Your task to perform on an android device: toggle priority inbox in the gmail app Image 0: 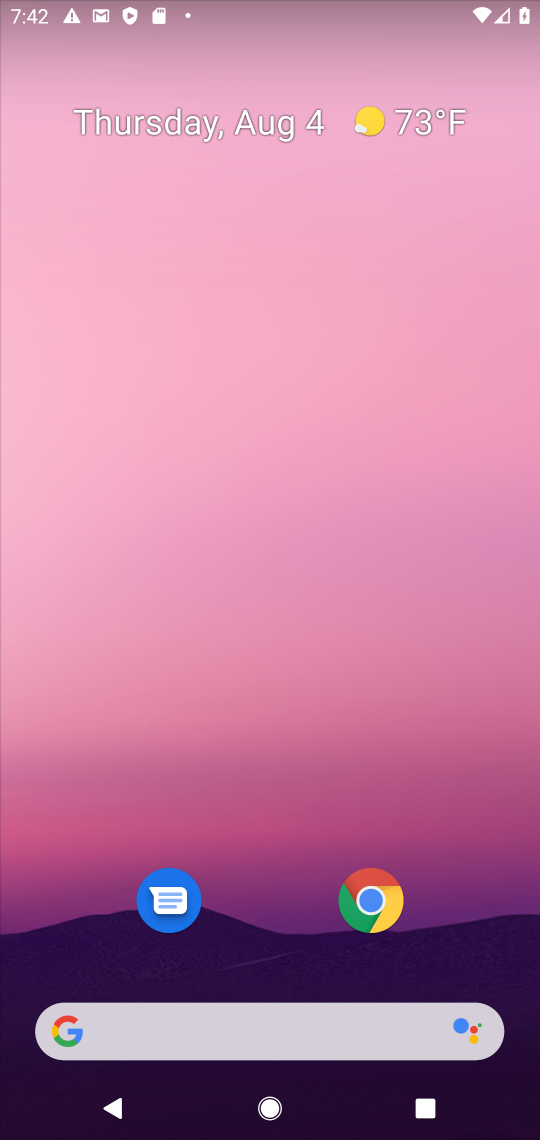
Step 0: drag from (267, 1021) to (404, 243)
Your task to perform on an android device: toggle priority inbox in the gmail app Image 1: 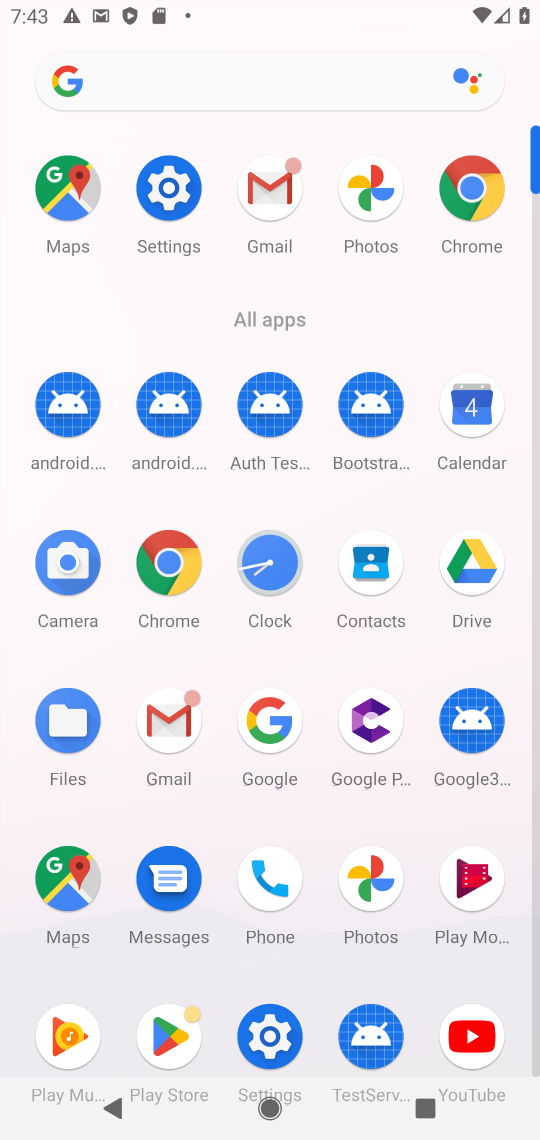
Step 1: click (278, 195)
Your task to perform on an android device: toggle priority inbox in the gmail app Image 2: 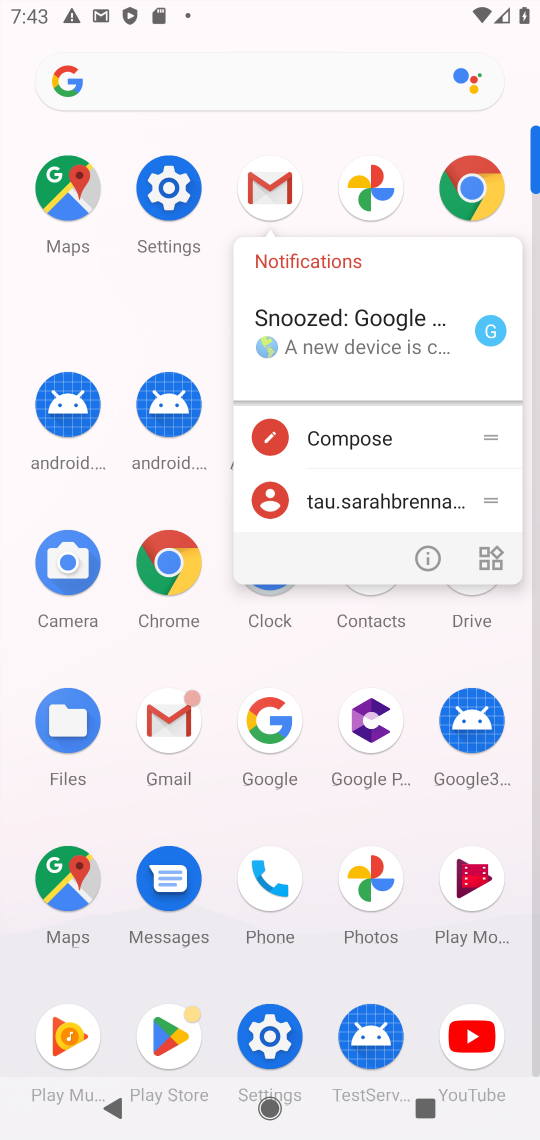
Step 2: click (267, 188)
Your task to perform on an android device: toggle priority inbox in the gmail app Image 3: 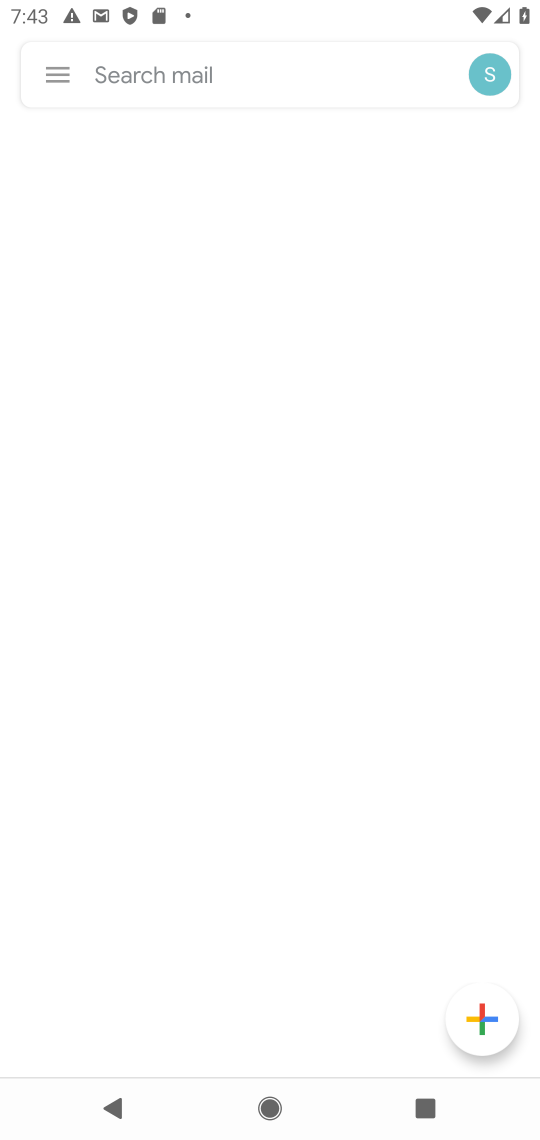
Step 3: click (45, 70)
Your task to perform on an android device: toggle priority inbox in the gmail app Image 4: 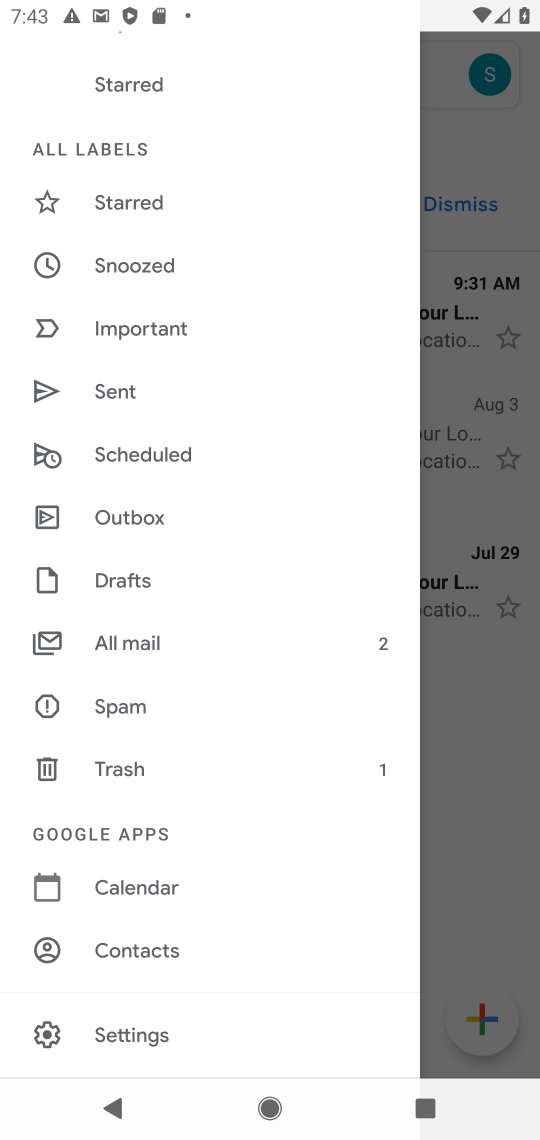
Step 4: click (140, 1033)
Your task to perform on an android device: toggle priority inbox in the gmail app Image 5: 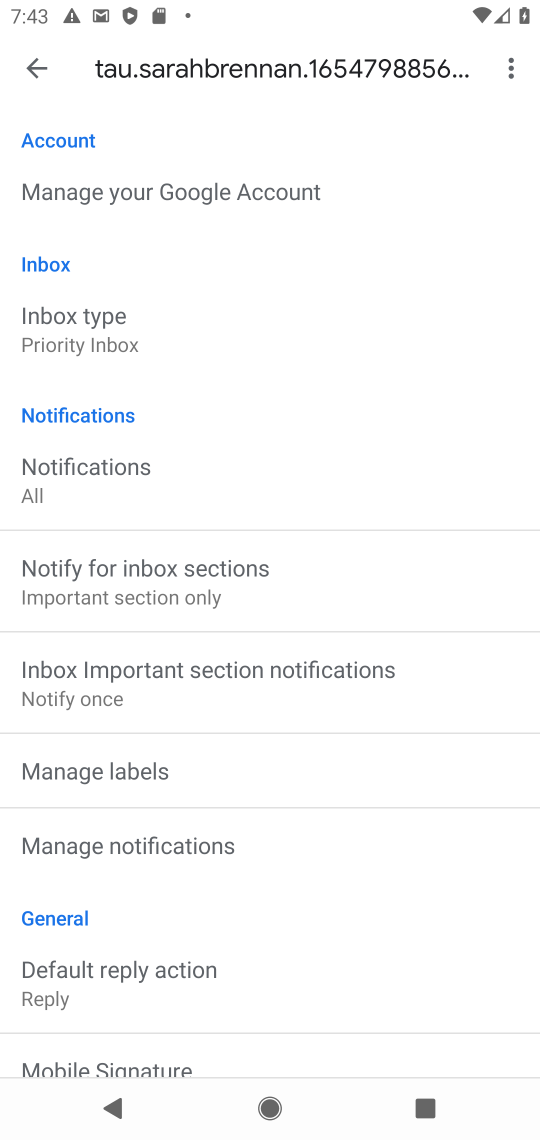
Step 5: click (93, 324)
Your task to perform on an android device: toggle priority inbox in the gmail app Image 6: 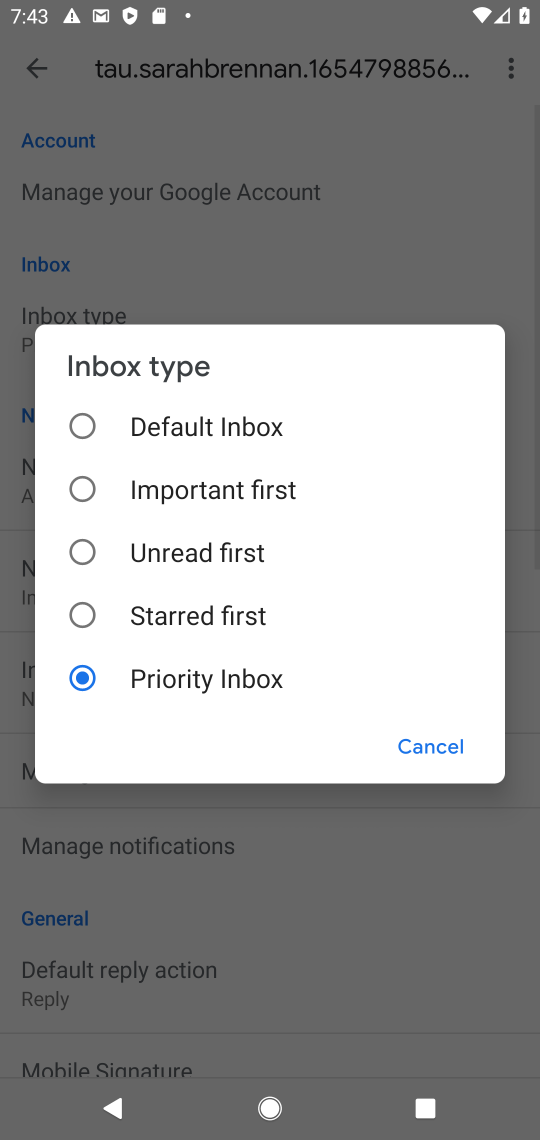
Step 6: click (81, 421)
Your task to perform on an android device: toggle priority inbox in the gmail app Image 7: 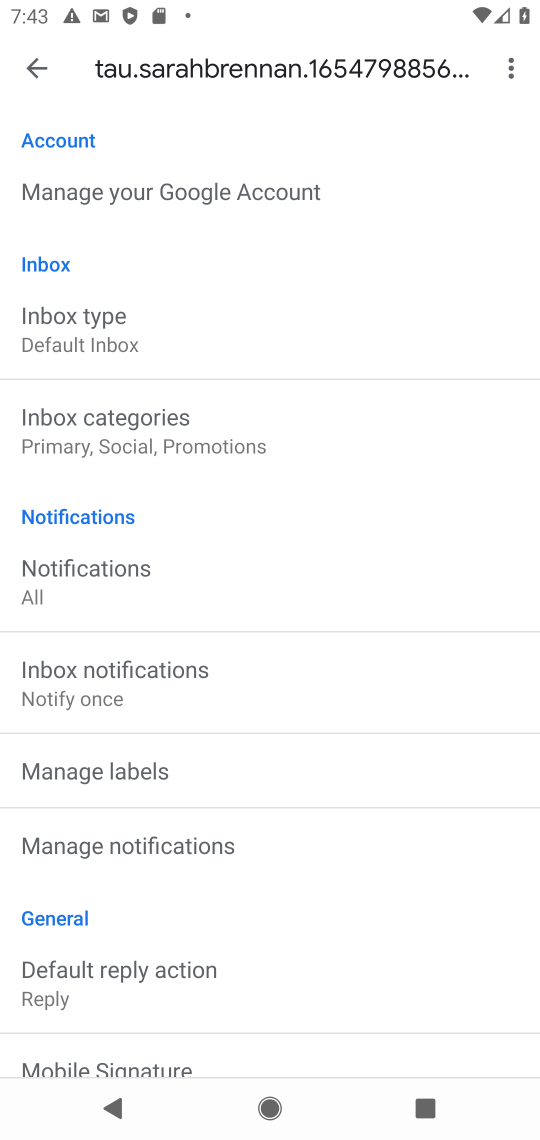
Step 7: task complete